Your task to perform on an android device: Open Yahoo.com Image 0: 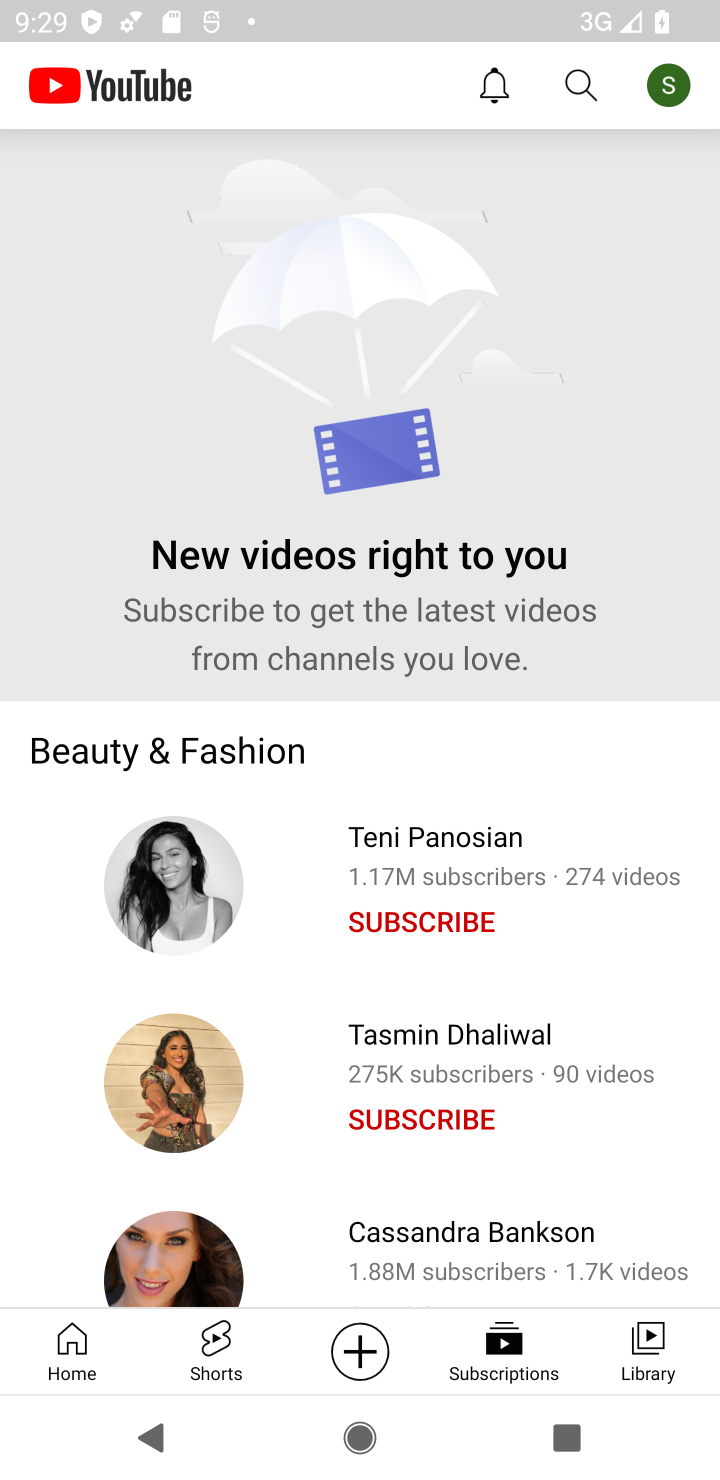
Step 0: press home button
Your task to perform on an android device: Open Yahoo.com Image 1: 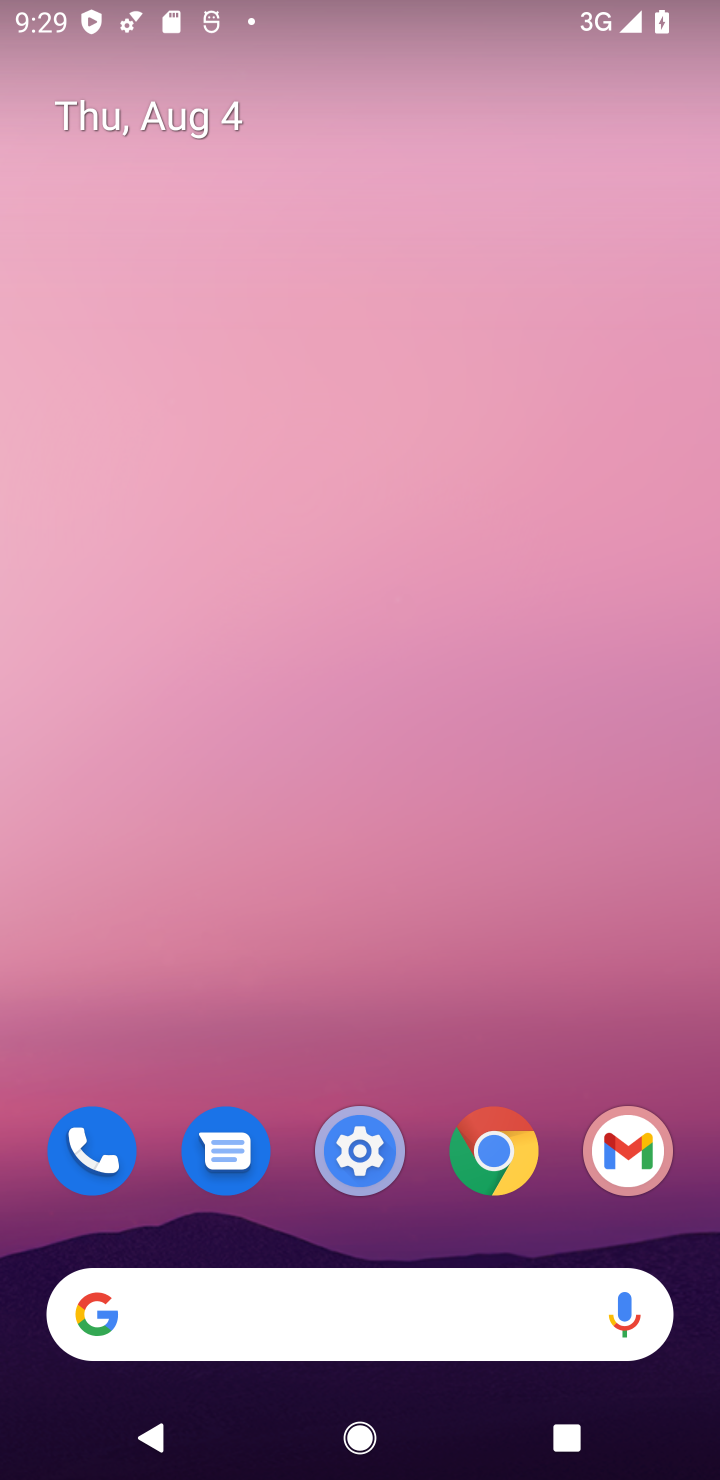
Step 1: click (495, 1168)
Your task to perform on an android device: Open Yahoo.com Image 2: 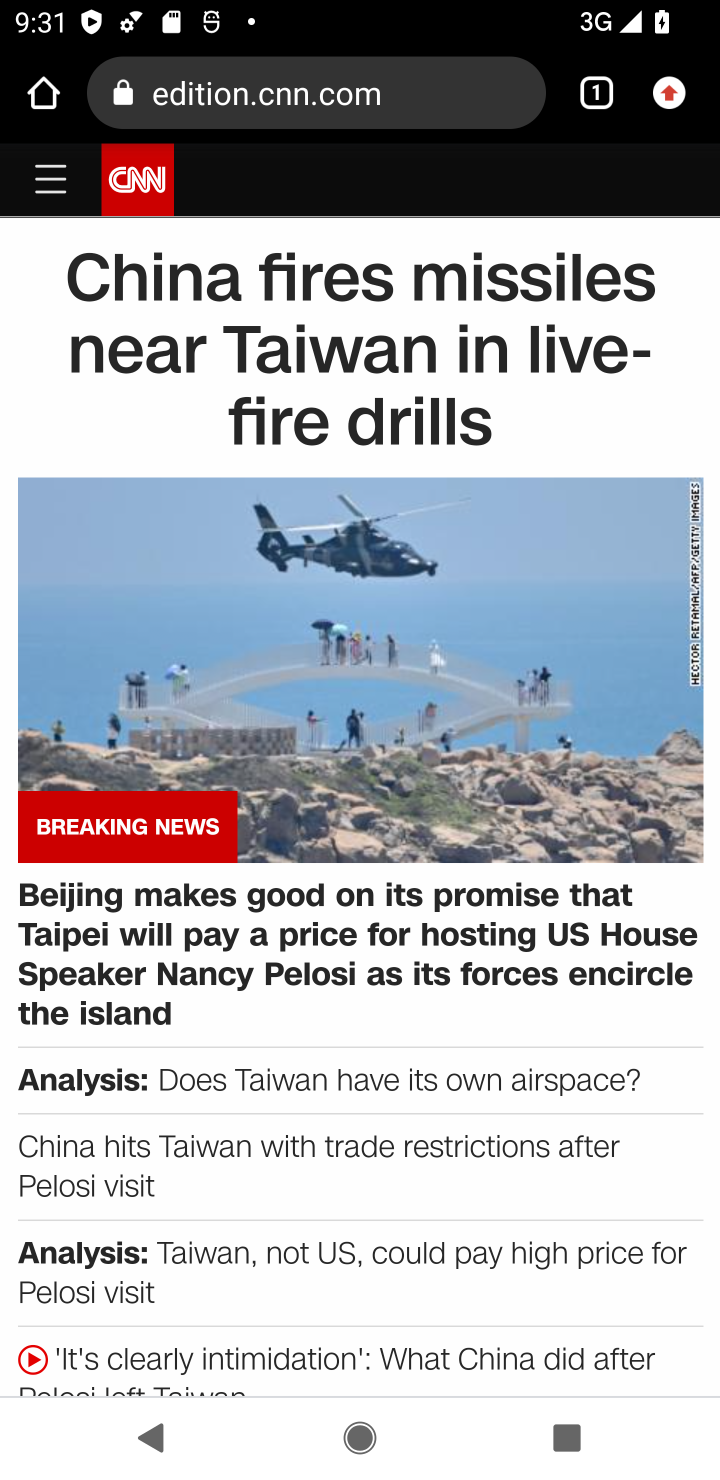
Step 2: click (325, 84)
Your task to perform on an android device: Open Yahoo.com Image 3: 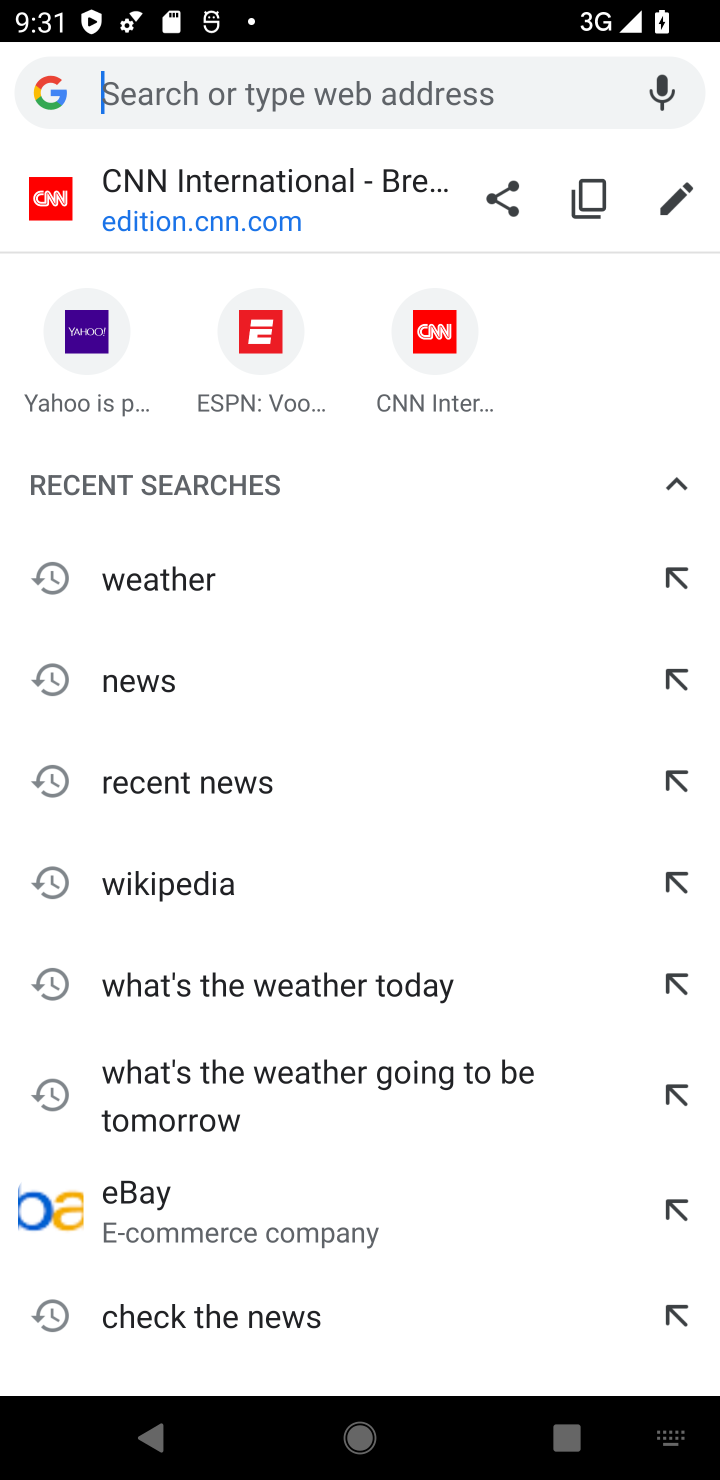
Step 3: click (99, 335)
Your task to perform on an android device: Open Yahoo.com Image 4: 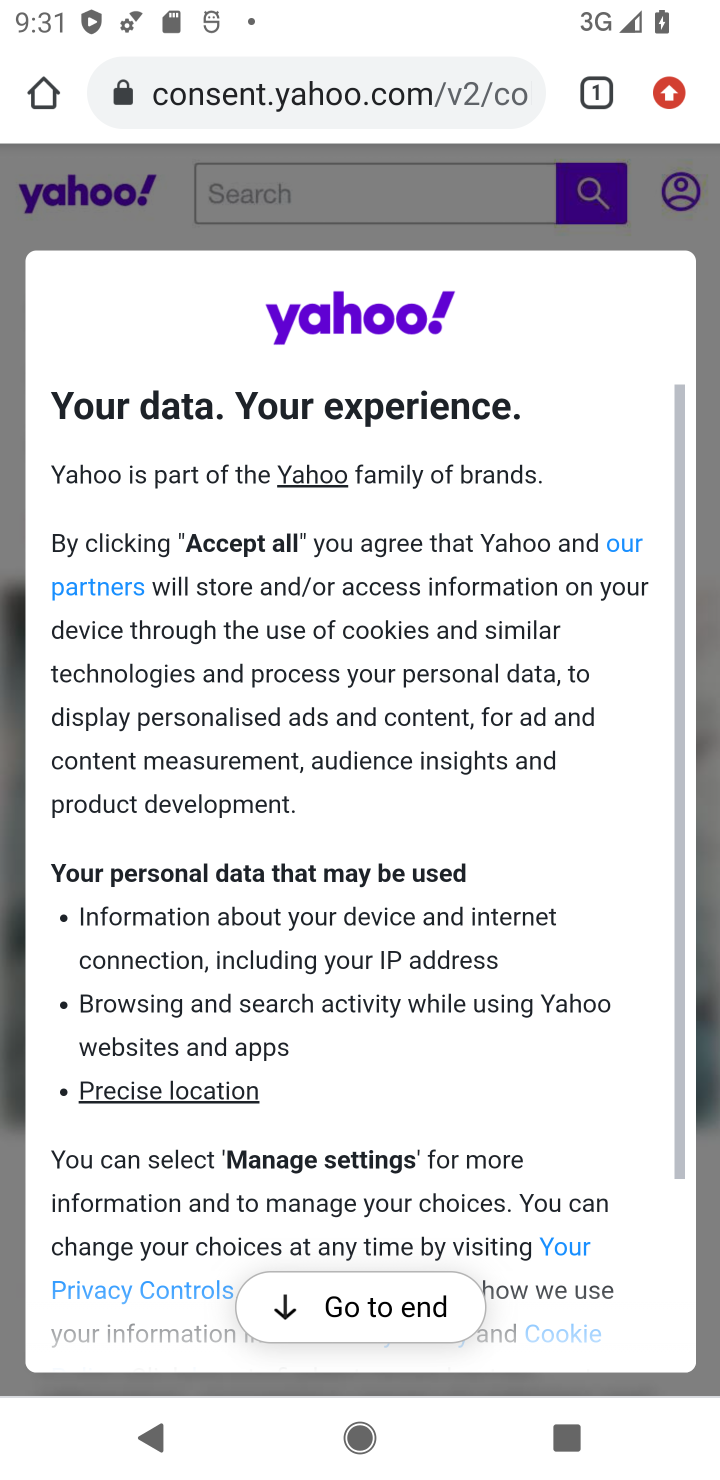
Step 4: task complete